Your task to perform on an android device: refresh tabs in the chrome app Image 0: 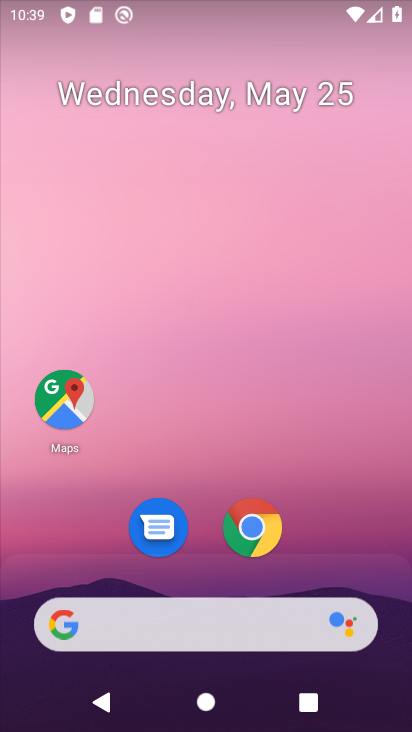
Step 0: click (241, 514)
Your task to perform on an android device: refresh tabs in the chrome app Image 1: 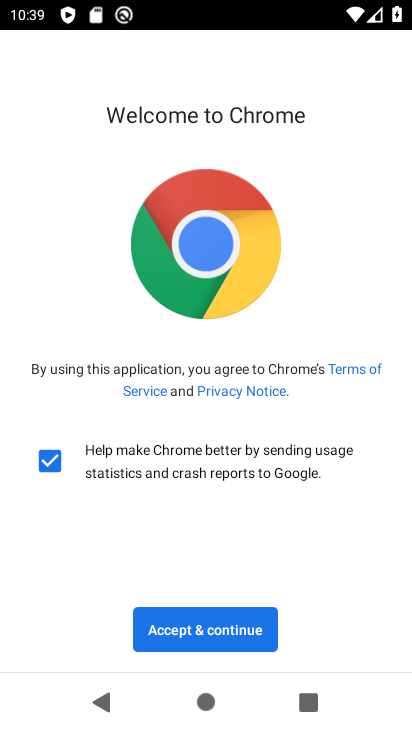
Step 1: click (225, 614)
Your task to perform on an android device: refresh tabs in the chrome app Image 2: 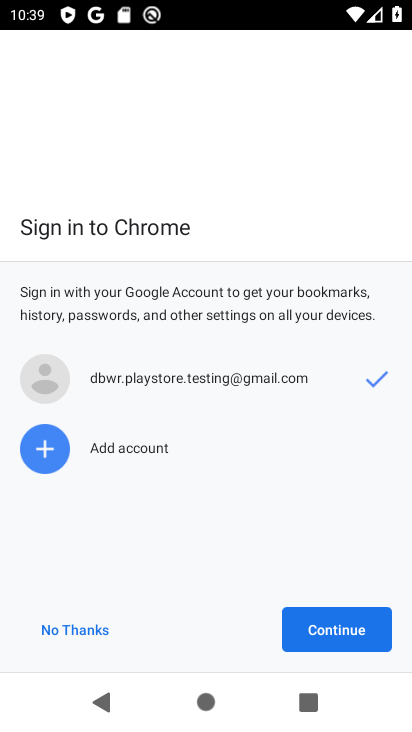
Step 2: click (356, 633)
Your task to perform on an android device: refresh tabs in the chrome app Image 3: 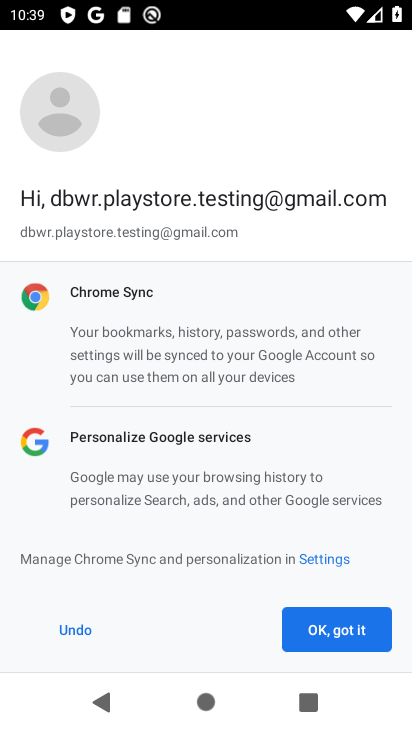
Step 3: click (317, 627)
Your task to perform on an android device: refresh tabs in the chrome app Image 4: 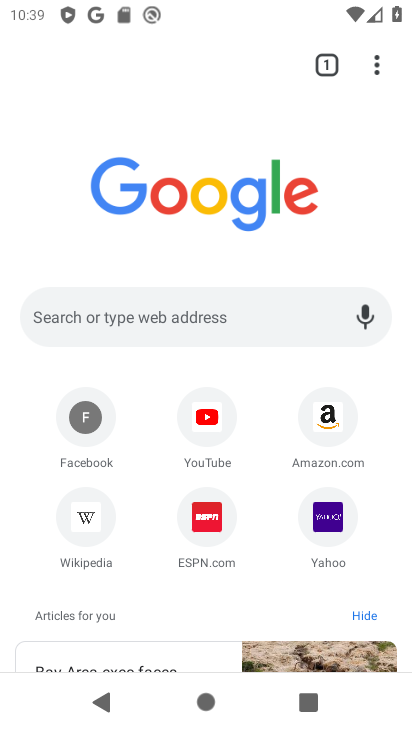
Step 4: click (369, 45)
Your task to perform on an android device: refresh tabs in the chrome app Image 5: 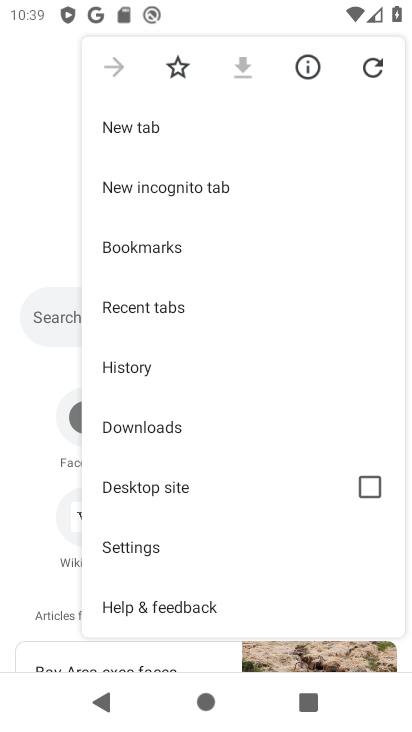
Step 5: click (363, 68)
Your task to perform on an android device: refresh tabs in the chrome app Image 6: 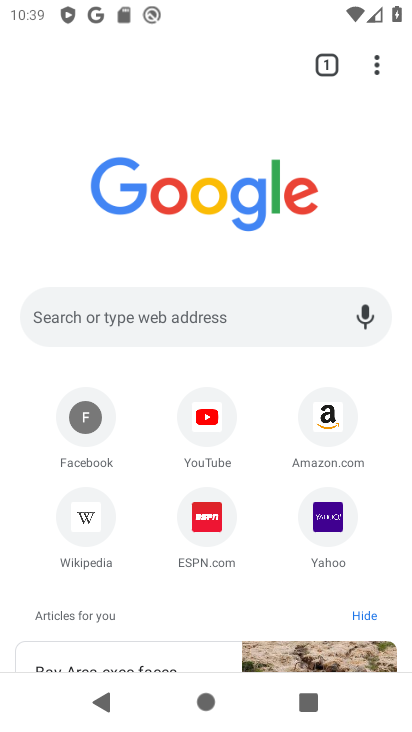
Step 6: task complete